Your task to perform on an android device: Show the shopping cart on target. Image 0: 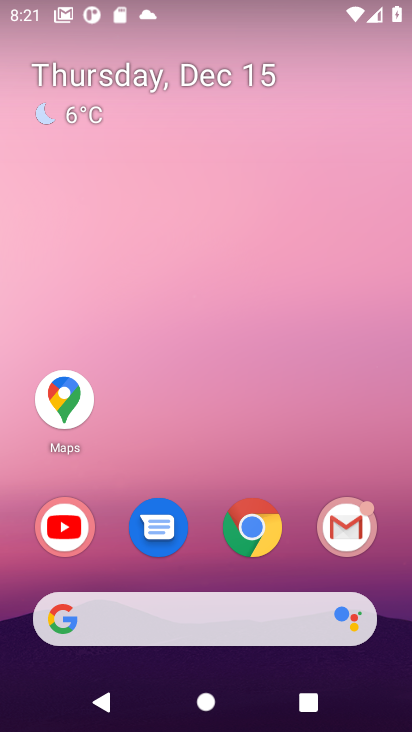
Step 0: click (204, 620)
Your task to perform on an android device: Show the shopping cart on target. Image 1: 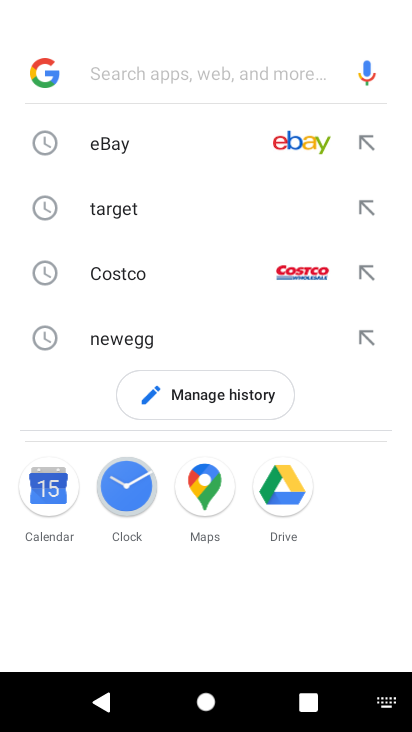
Step 1: click (143, 208)
Your task to perform on an android device: Show the shopping cart on target. Image 2: 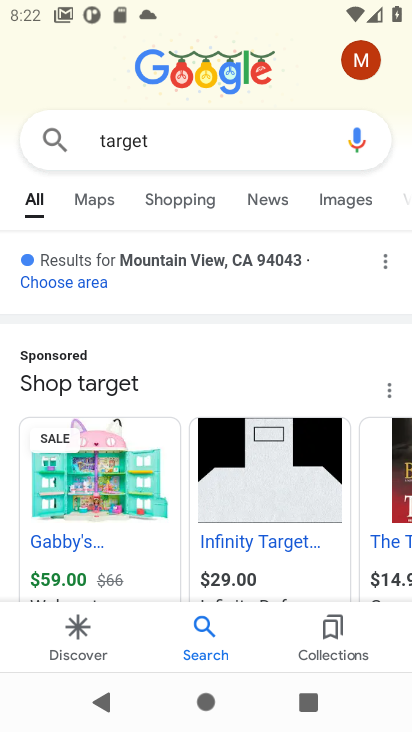
Step 2: drag from (115, 521) to (121, 163)
Your task to perform on an android device: Show the shopping cart on target. Image 3: 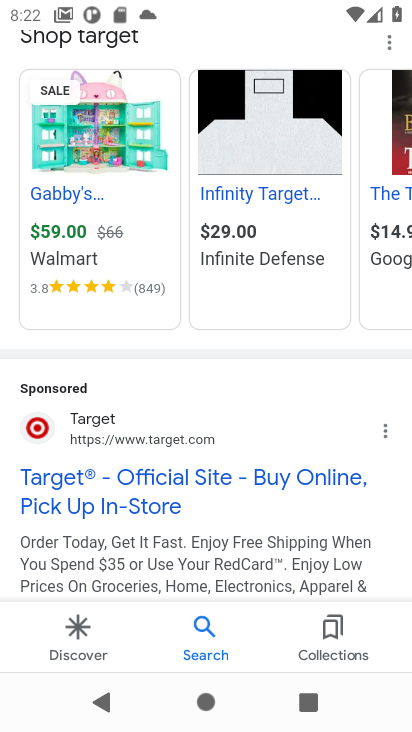
Step 3: click (159, 429)
Your task to perform on an android device: Show the shopping cart on target. Image 4: 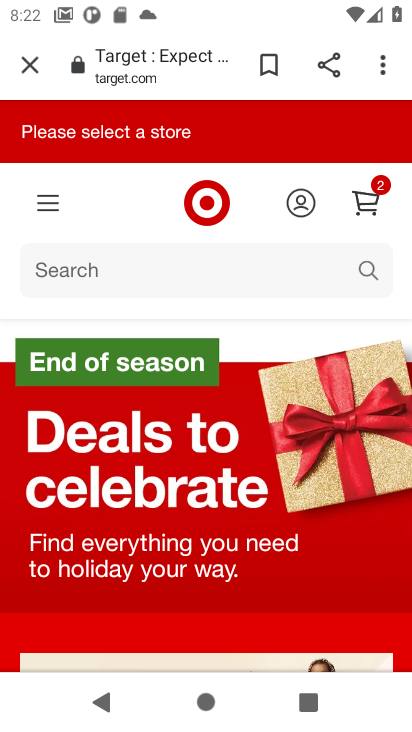
Step 4: click (94, 261)
Your task to perform on an android device: Show the shopping cart on target. Image 5: 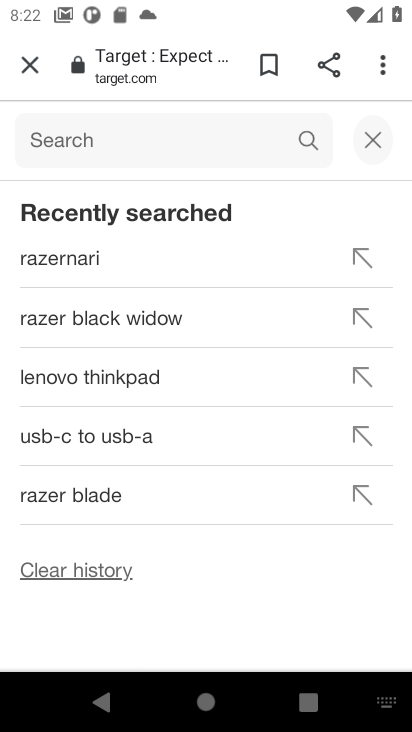
Step 5: click (369, 157)
Your task to perform on an android device: Show the shopping cart on target. Image 6: 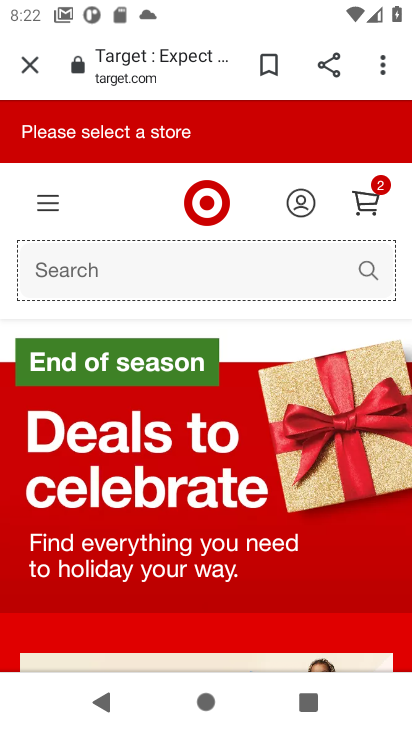
Step 6: click (373, 190)
Your task to perform on an android device: Show the shopping cart on target. Image 7: 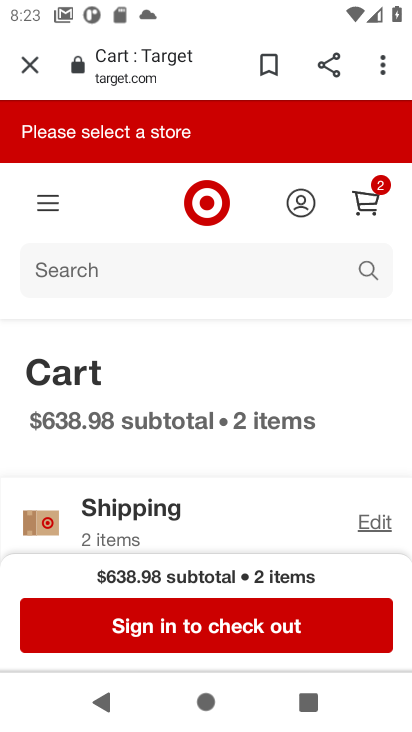
Step 7: click (203, 617)
Your task to perform on an android device: Show the shopping cart on target. Image 8: 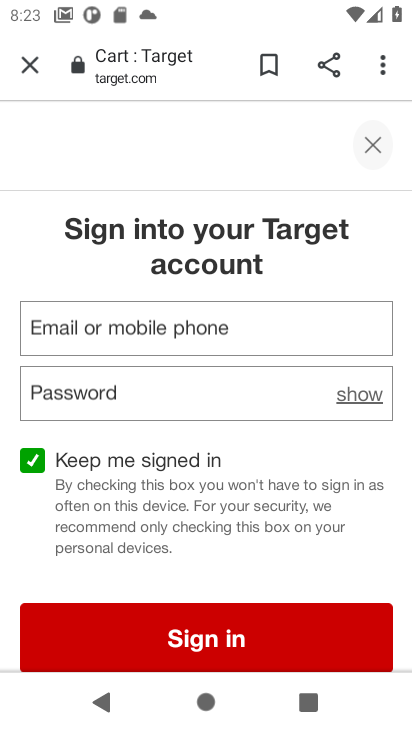
Step 8: task complete